Your task to perform on an android device: Is it going to rain today? Image 0: 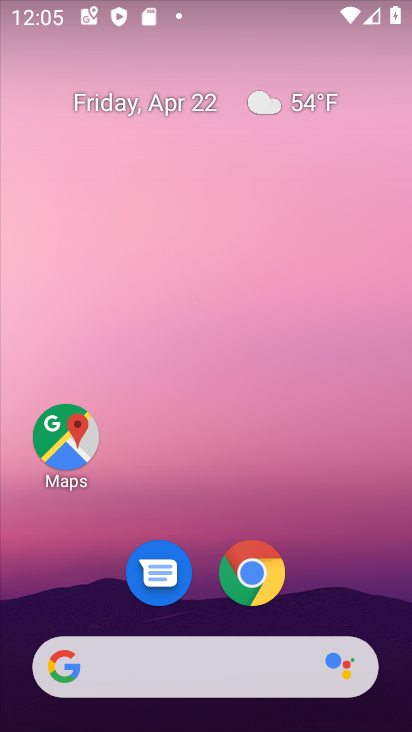
Step 0: drag from (357, 469) to (353, 179)
Your task to perform on an android device: Is it going to rain today? Image 1: 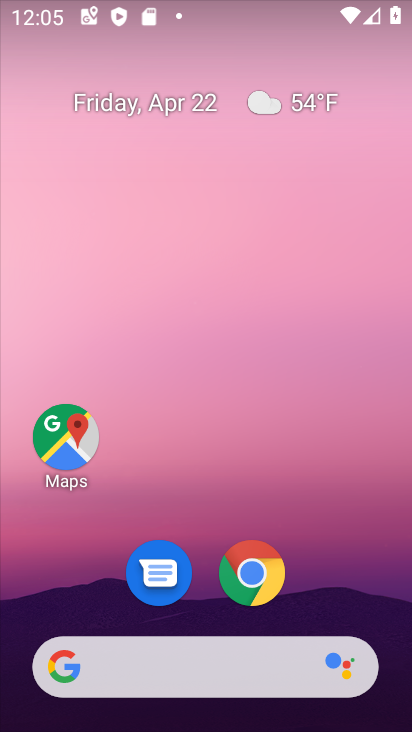
Step 1: drag from (342, 583) to (307, 154)
Your task to perform on an android device: Is it going to rain today? Image 2: 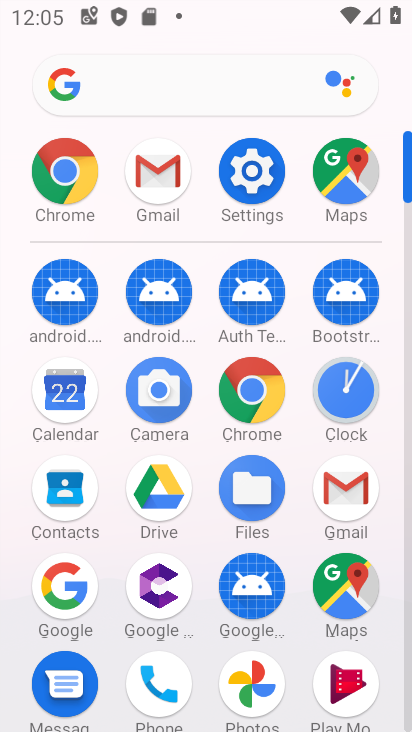
Step 2: click (257, 394)
Your task to perform on an android device: Is it going to rain today? Image 3: 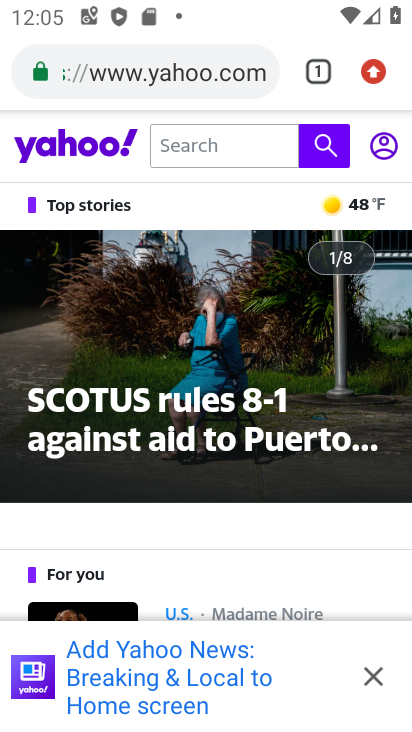
Step 3: click (203, 64)
Your task to perform on an android device: Is it going to rain today? Image 4: 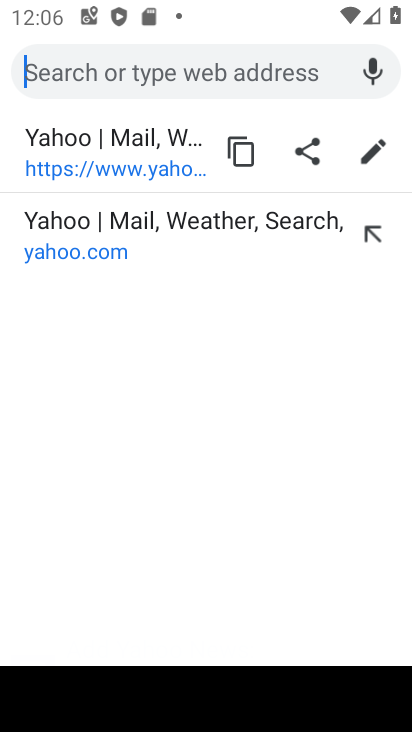
Step 4: type "is it going to rain today"
Your task to perform on an android device: Is it going to rain today? Image 5: 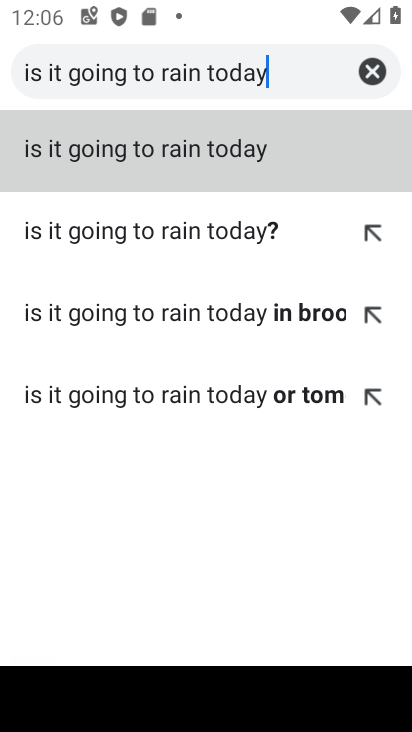
Step 5: click (157, 146)
Your task to perform on an android device: Is it going to rain today? Image 6: 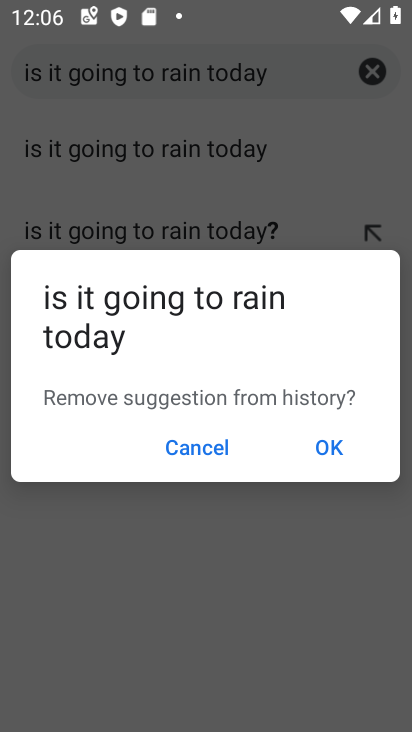
Step 6: click (162, 437)
Your task to perform on an android device: Is it going to rain today? Image 7: 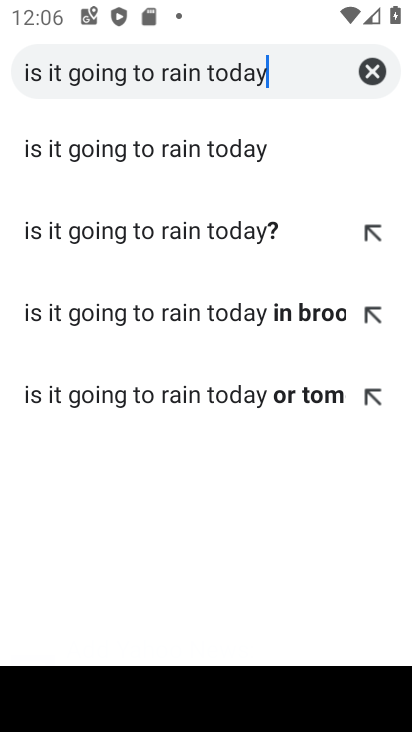
Step 7: click (57, 240)
Your task to perform on an android device: Is it going to rain today? Image 8: 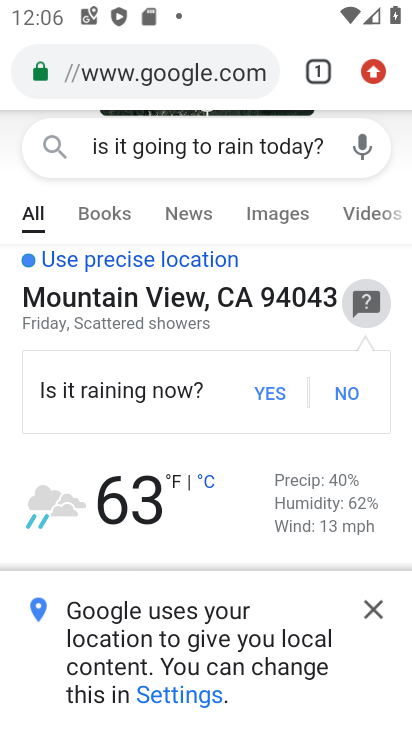
Step 8: task complete